Your task to perform on an android device: Show me recent news Image 0: 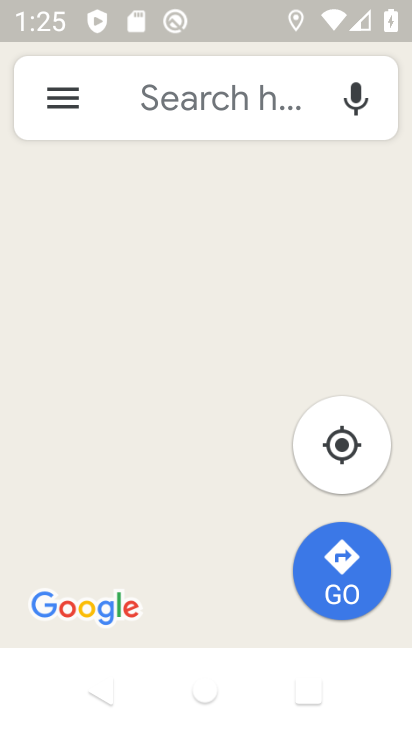
Step 0: click (171, 498)
Your task to perform on an android device: Show me recent news Image 1: 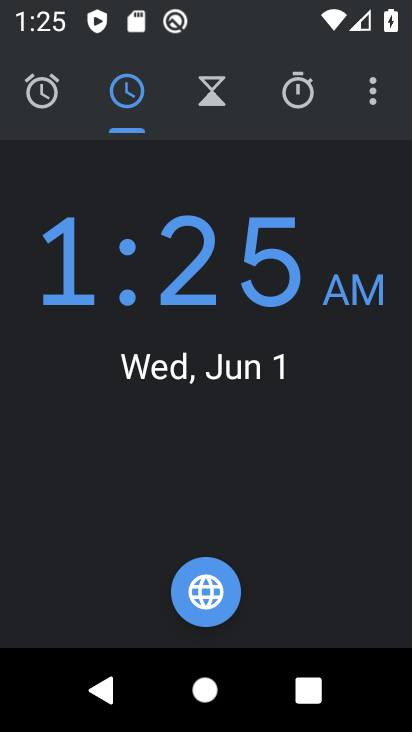
Step 1: press home button
Your task to perform on an android device: Show me recent news Image 2: 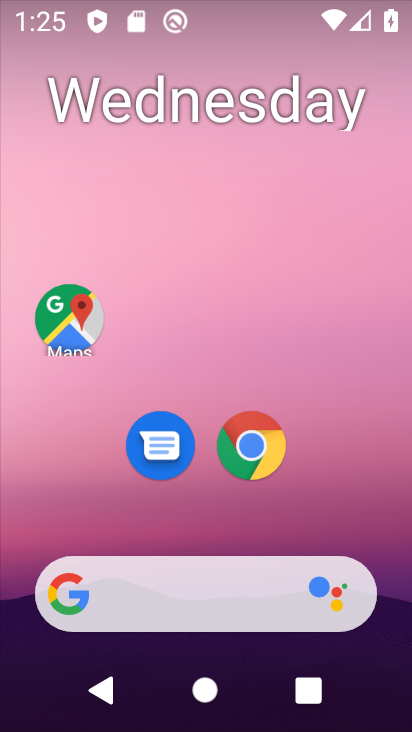
Step 2: drag from (215, 540) to (359, 36)
Your task to perform on an android device: Show me recent news Image 3: 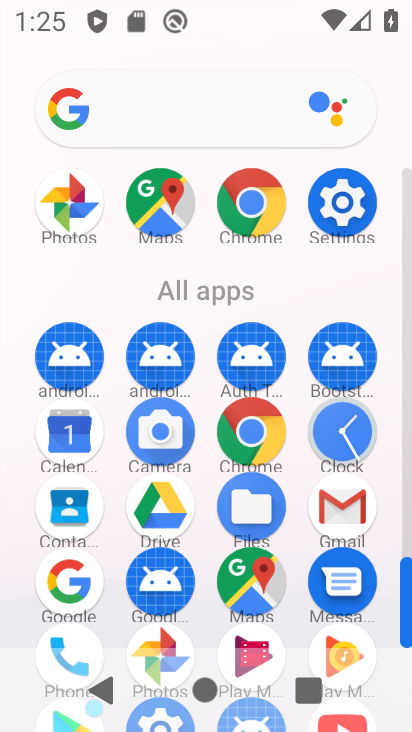
Step 3: click (80, 572)
Your task to perform on an android device: Show me recent news Image 4: 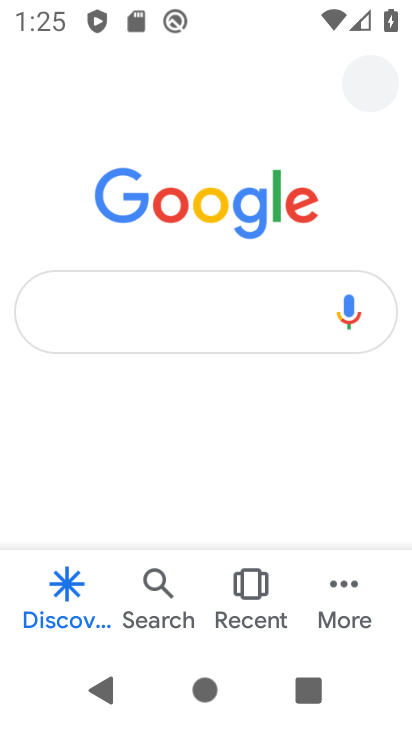
Step 4: click (97, 300)
Your task to perform on an android device: Show me recent news Image 5: 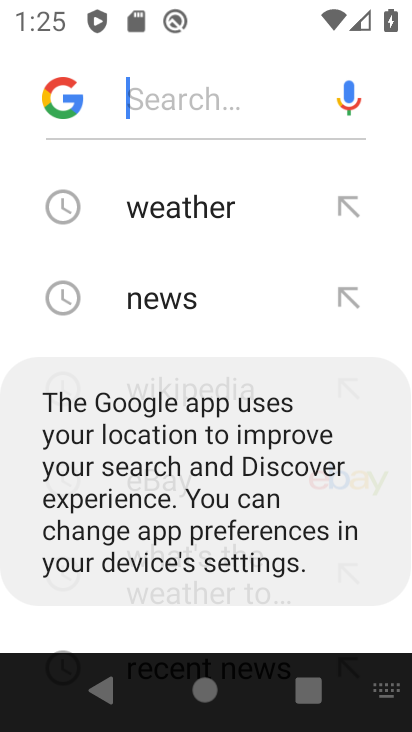
Step 5: click (137, 296)
Your task to perform on an android device: Show me recent news Image 6: 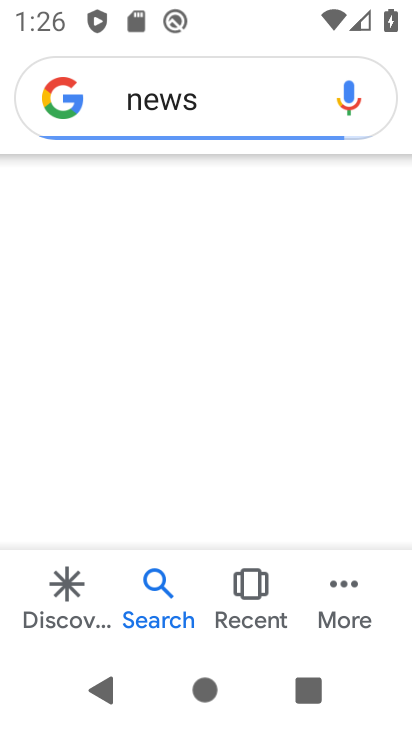
Step 6: task complete